Your task to perform on an android device: Open ESPN.com Image 0: 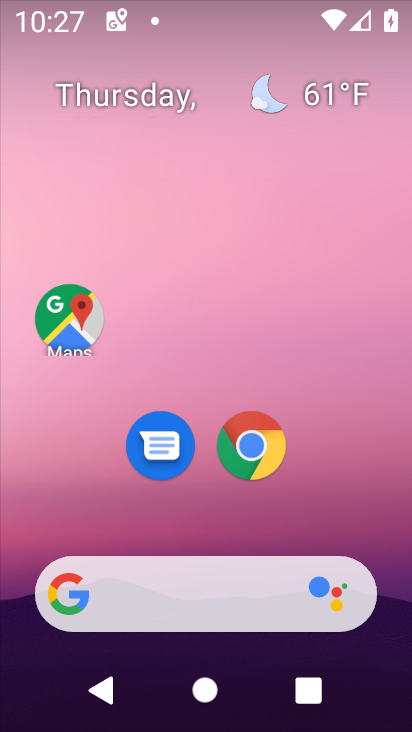
Step 0: click (269, 438)
Your task to perform on an android device: Open ESPN.com Image 1: 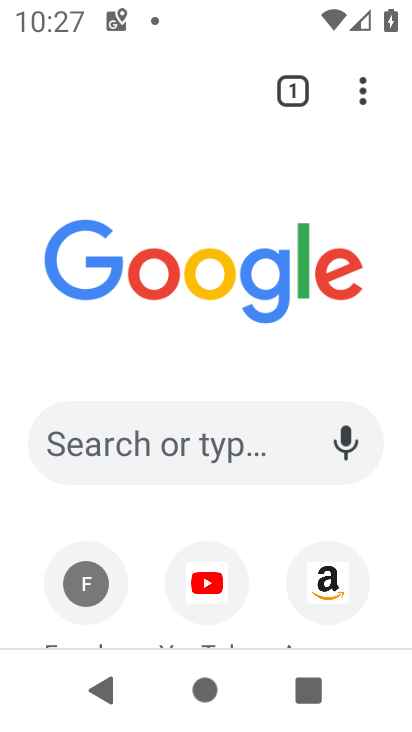
Step 1: click (187, 437)
Your task to perform on an android device: Open ESPN.com Image 2: 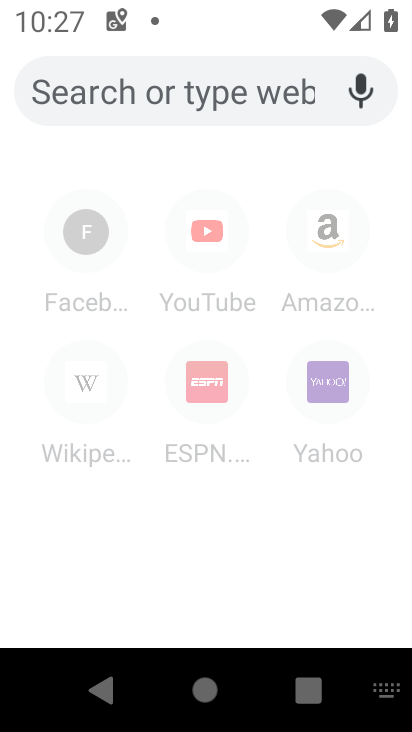
Step 2: type "espn.com"
Your task to perform on an android device: Open ESPN.com Image 3: 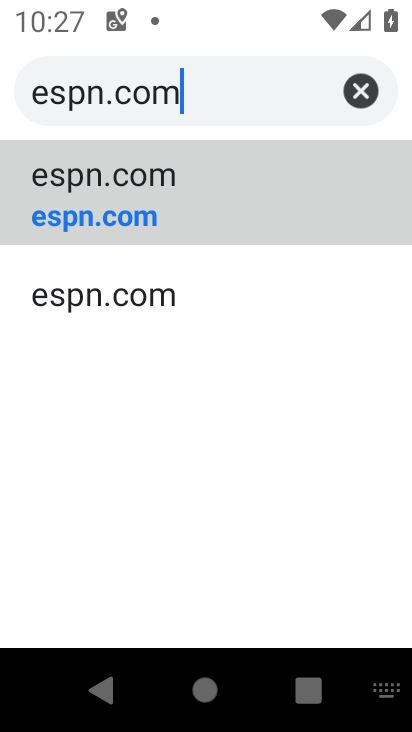
Step 3: click (124, 170)
Your task to perform on an android device: Open ESPN.com Image 4: 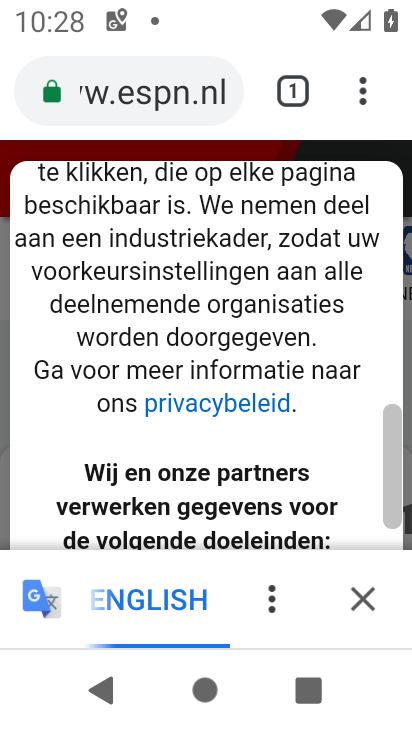
Step 4: task complete